Your task to perform on an android device: delete browsing data in the chrome app Image 0: 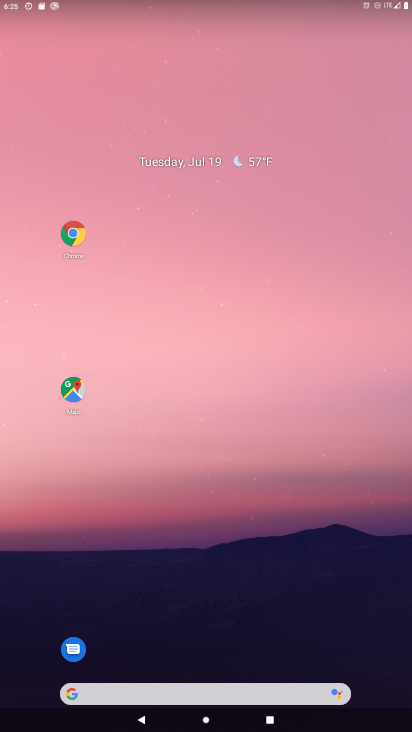
Step 0: click (73, 233)
Your task to perform on an android device: delete browsing data in the chrome app Image 1: 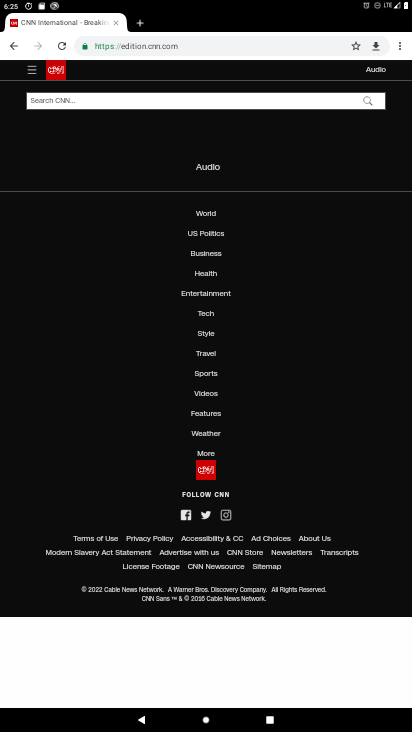
Step 1: click (402, 43)
Your task to perform on an android device: delete browsing data in the chrome app Image 2: 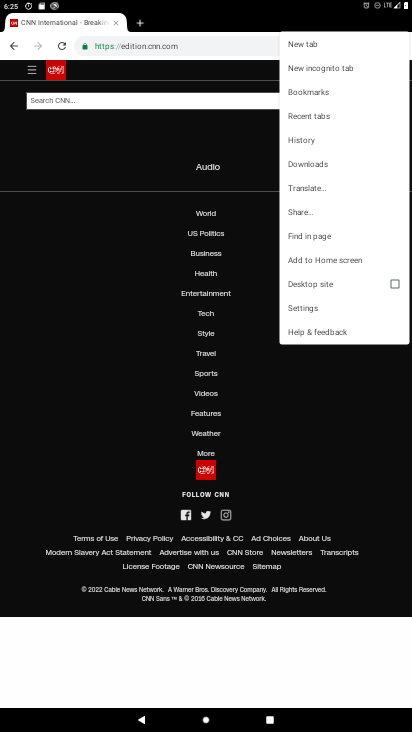
Step 2: click (305, 133)
Your task to perform on an android device: delete browsing data in the chrome app Image 3: 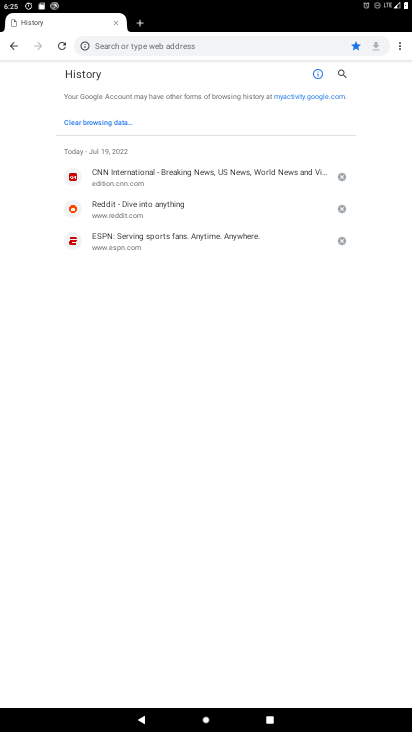
Step 3: click (101, 120)
Your task to perform on an android device: delete browsing data in the chrome app Image 4: 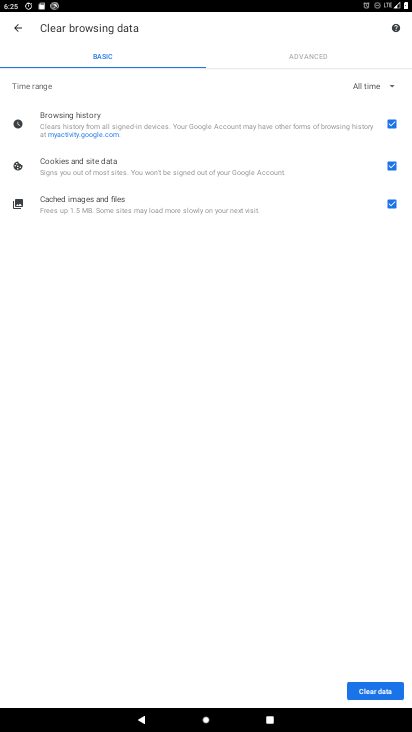
Step 4: click (372, 684)
Your task to perform on an android device: delete browsing data in the chrome app Image 5: 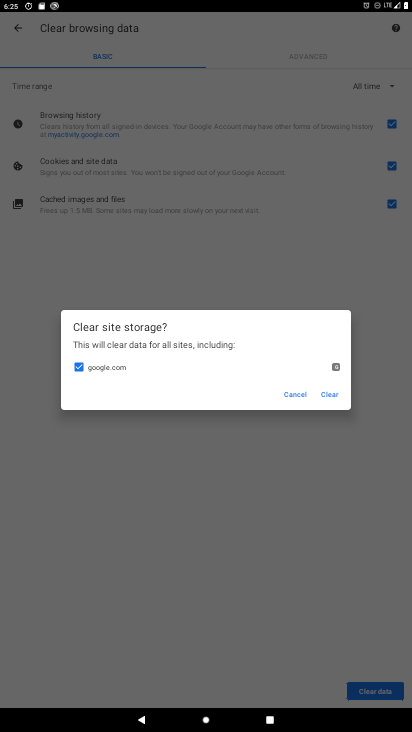
Step 5: click (336, 393)
Your task to perform on an android device: delete browsing data in the chrome app Image 6: 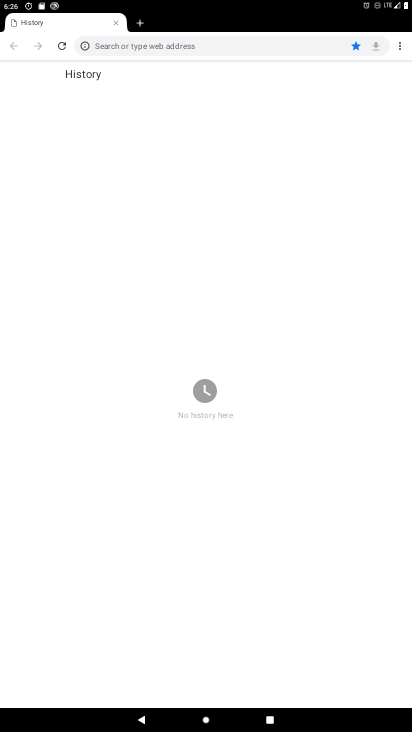
Step 6: task complete